Your task to perform on an android device: Is it going to rain tomorrow? Image 0: 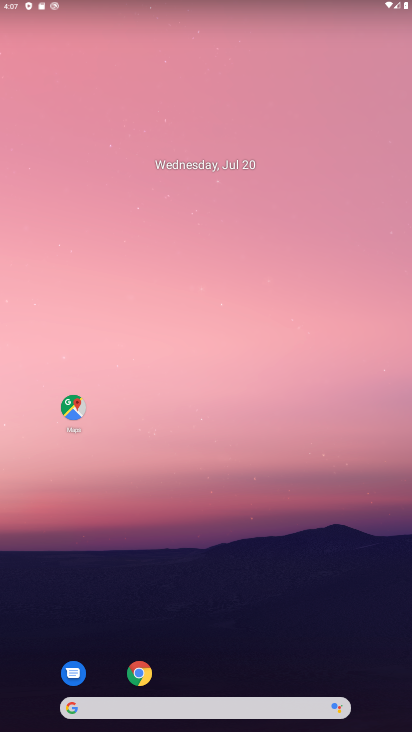
Step 0: click (141, 671)
Your task to perform on an android device: Is it going to rain tomorrow? Image 1: 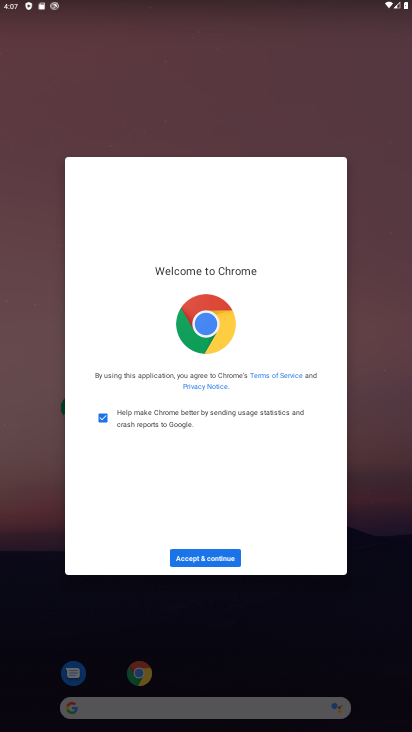
Step 1: click (190, 550)
Your task to perform on an android device: Is it going to rain tomorrow? Image 2: 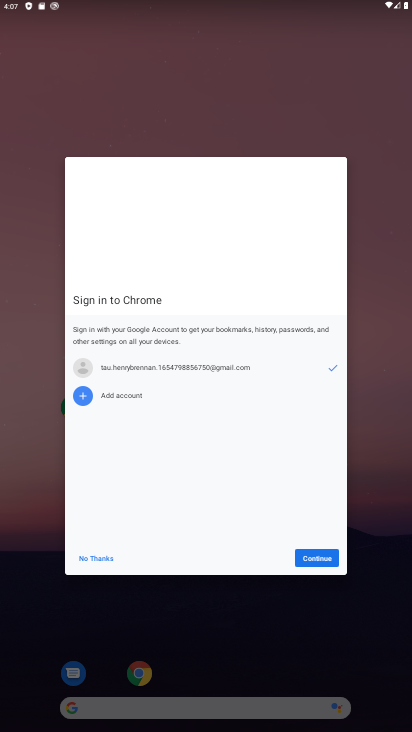
Step 2: click (332, 556)
Your task to perform on an android device: Is it going to rain tomorrow? Image 3: 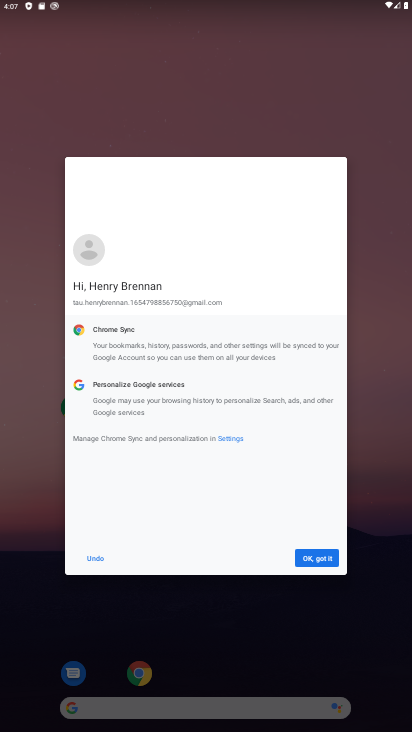
Step 3: click (332, 556)
Your task to perform on an android device: Is it going to rain tomorrow? Image 4: 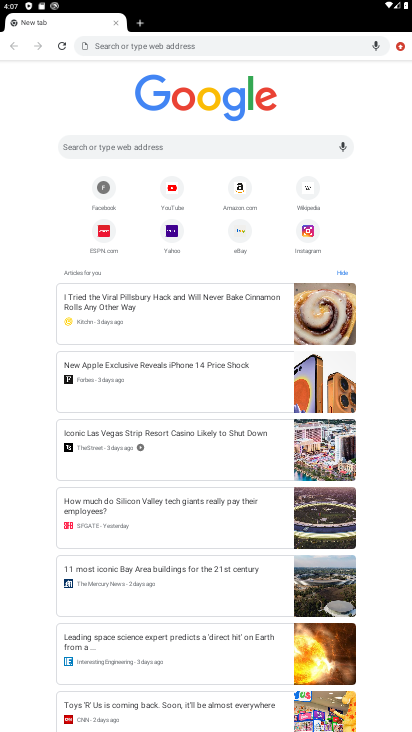
Step 4: click (152, 44)
Your task to perform on an android device: Is it going to rain tomorrow? Image 5: 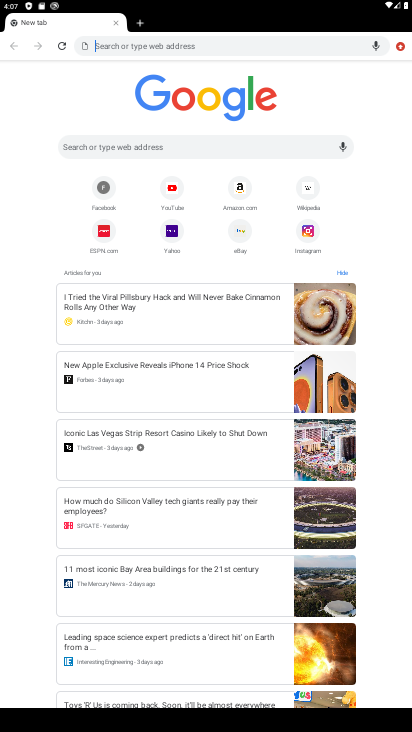
Step 5: type "Is it going to rain tomorrow?"
Your task to perform on an android device: Is it going to rain tomorrow? Image 6: 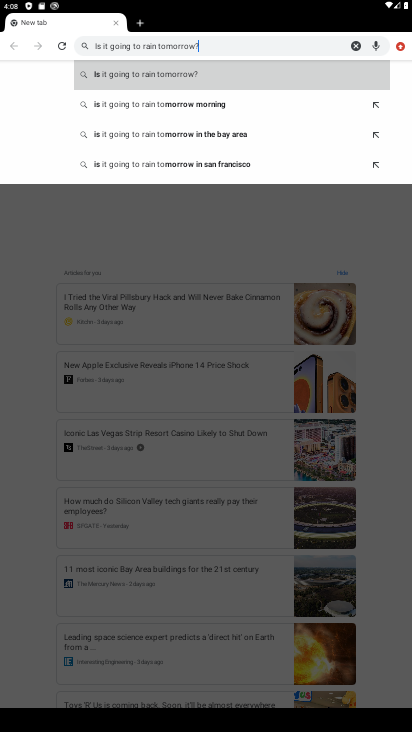
Step 6: click (162, 78)
Your task to perform on an android device: Is it going to rain tomorrow? Image 7: 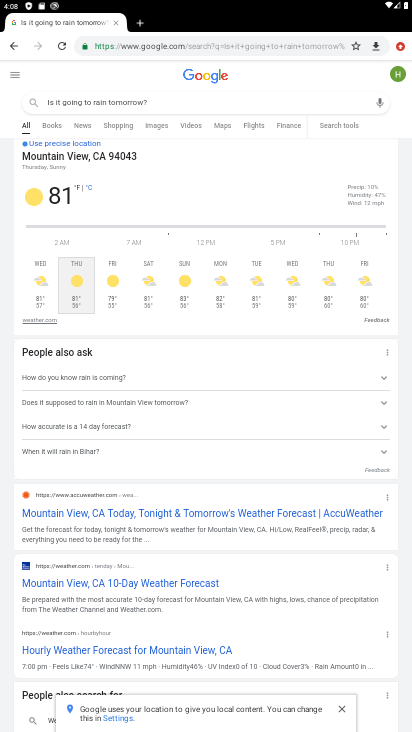
Step 7: task complete